Your task to perform on an android device: Open Wikipedia Image 0: 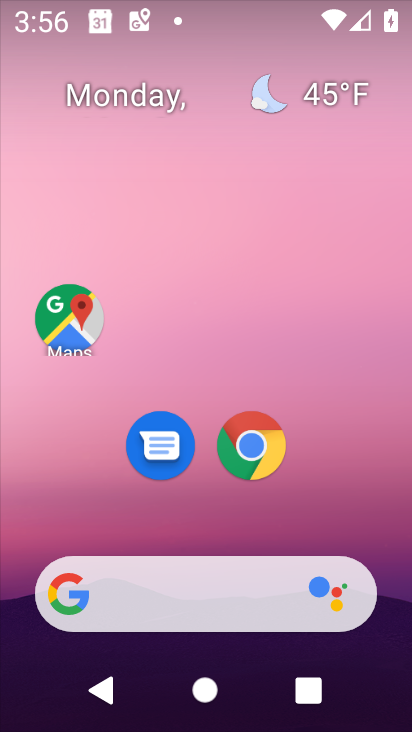
Step 0: click (237, 470)
Your task to perform on an android device: Open Wikipedia Image 1: 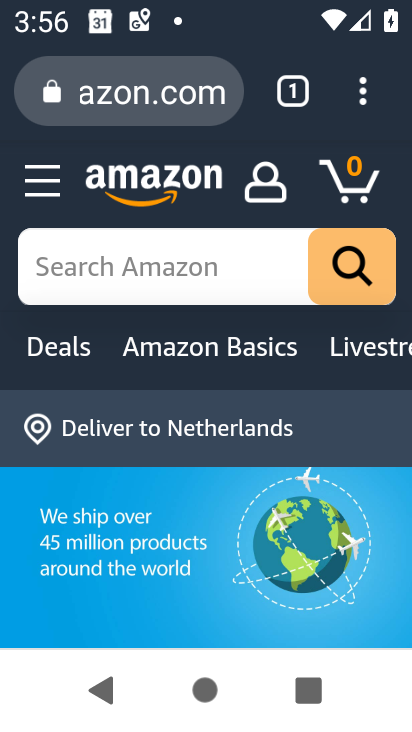
Step 1: click (112, 110)
Your task to perform on an android device: Open Wikipedia Image 2: 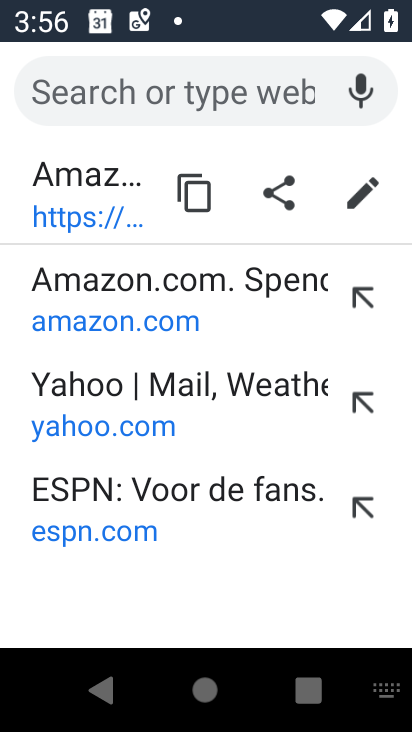
Step 2: type "wikipedia"
Your task to perform on an android device: Open Wikipedia Image 3: 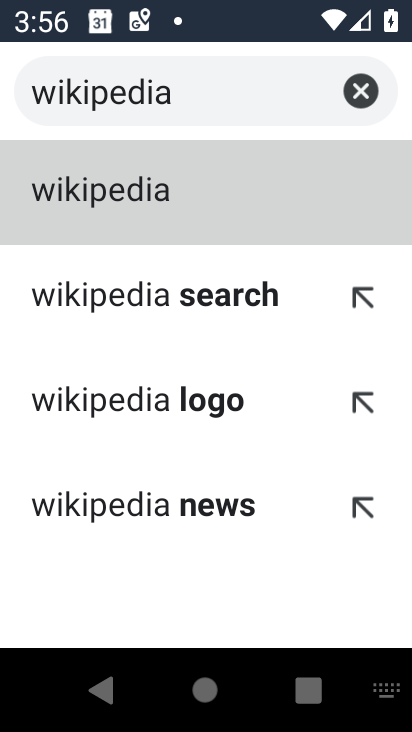
Step 3: click (138, 201)
Your task to perform on an android device: Open Wikipedia Image 4: 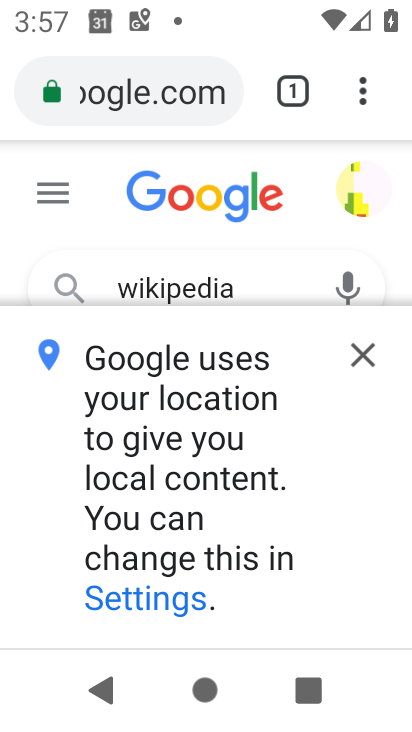
Step 4: click (353, 349)
Your task to perform on an android device: Open Wikipedia Image 5: 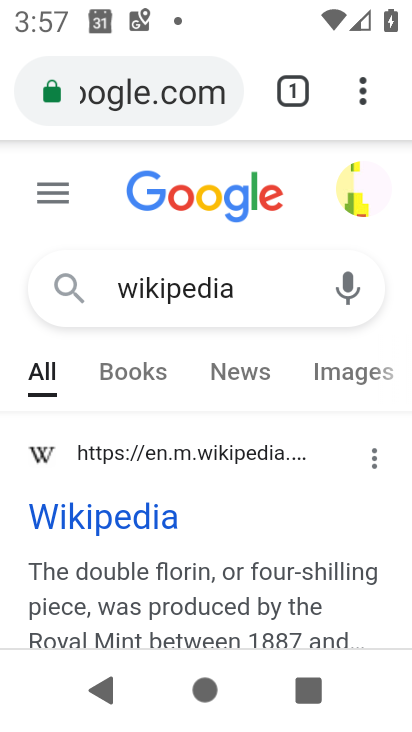
Step 5: click (95, 526)
Your task to perform on an android device: Open Wikipedia Image 6: 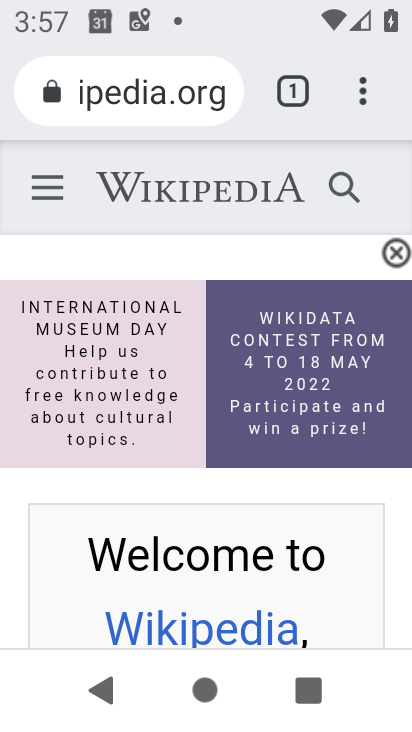
Step 6: task complete